Your task to perform on an android device: install app "AliExpress" Image 0: 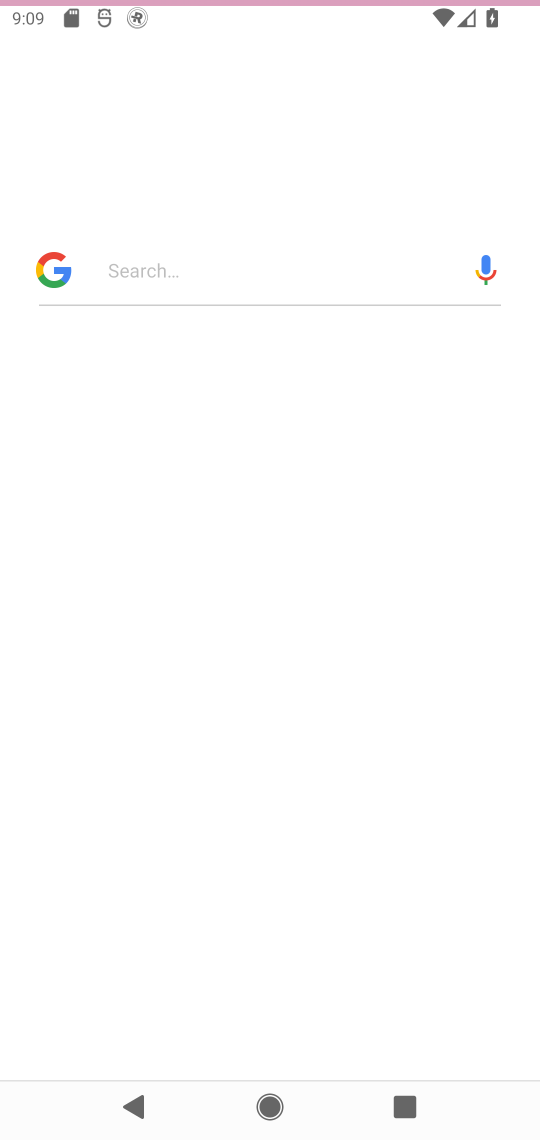
Step 0: press home button
Your task to perform on an android device: install app "AliExpress" Image 1: 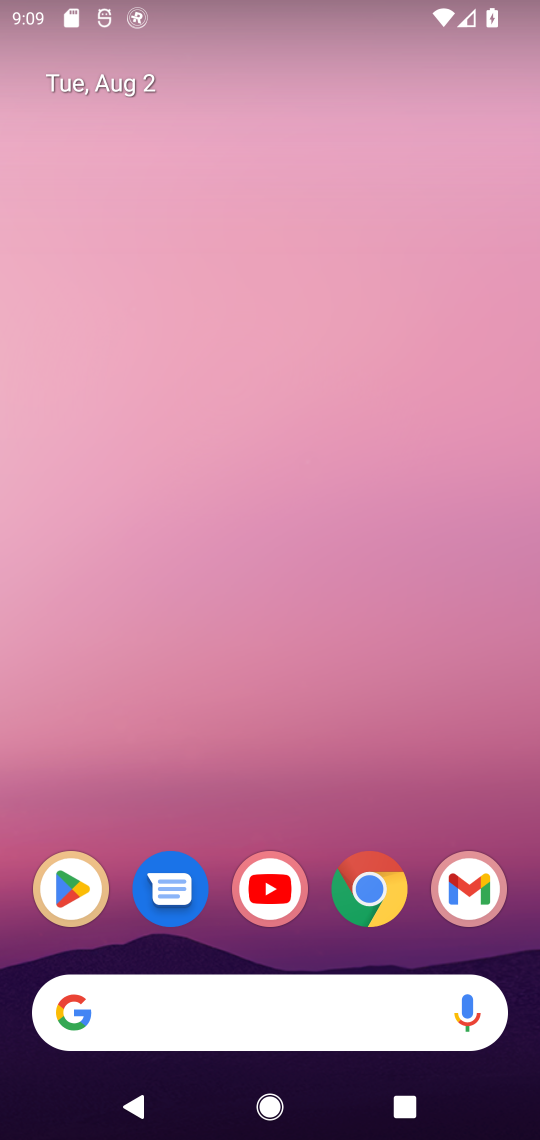
Step 1: click (84, 890)
Your task to perform on an android device: install app "AliExpress" Image 2: 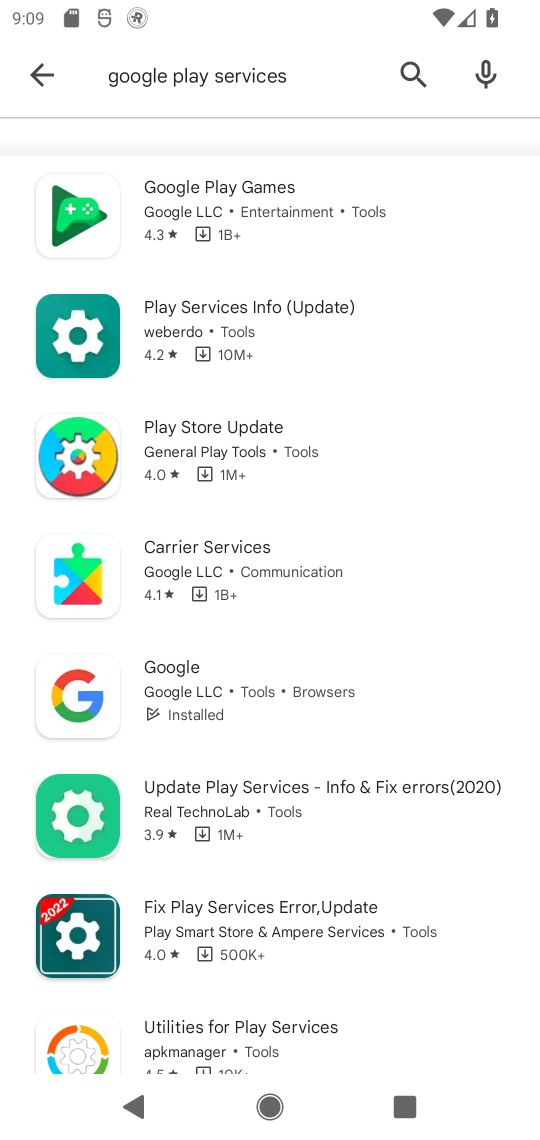
Step 2: click (420, 72)
Your task to perform on an android device: install app "AliExpress" Image 3: 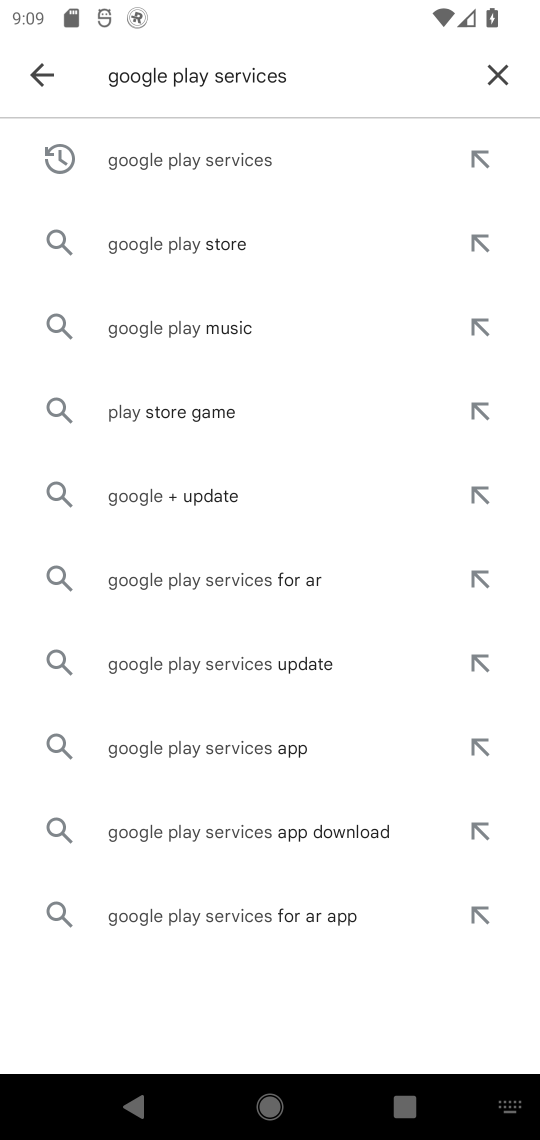
Step 3: click (490, 69)
Your task to perform on an android device: install app "AliExpress" Image 4: 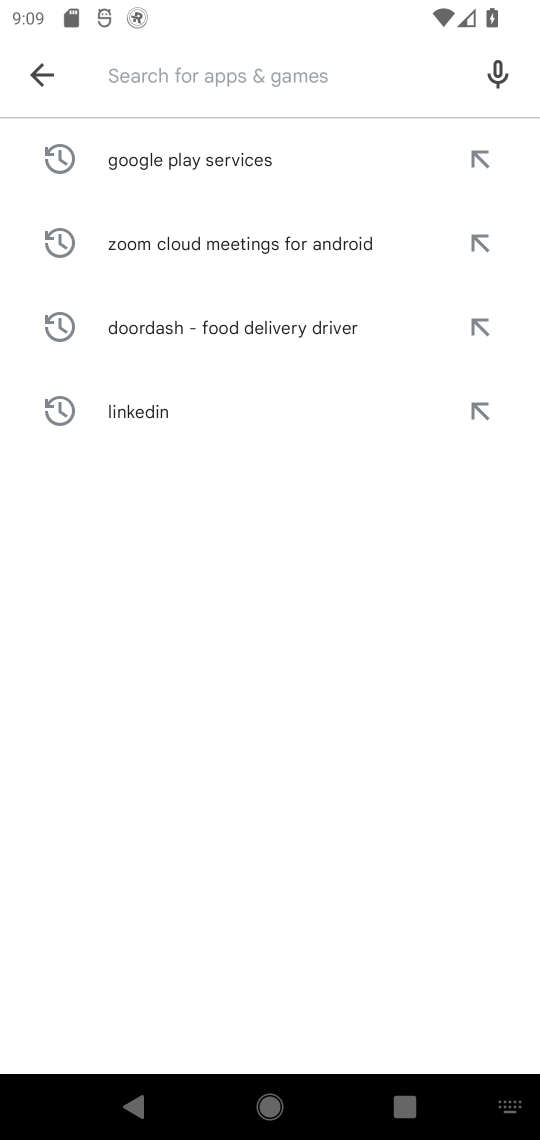
Step 4: type "AliExpress"
Your task to perform on an android device: install app "AliExpress" Image 5: 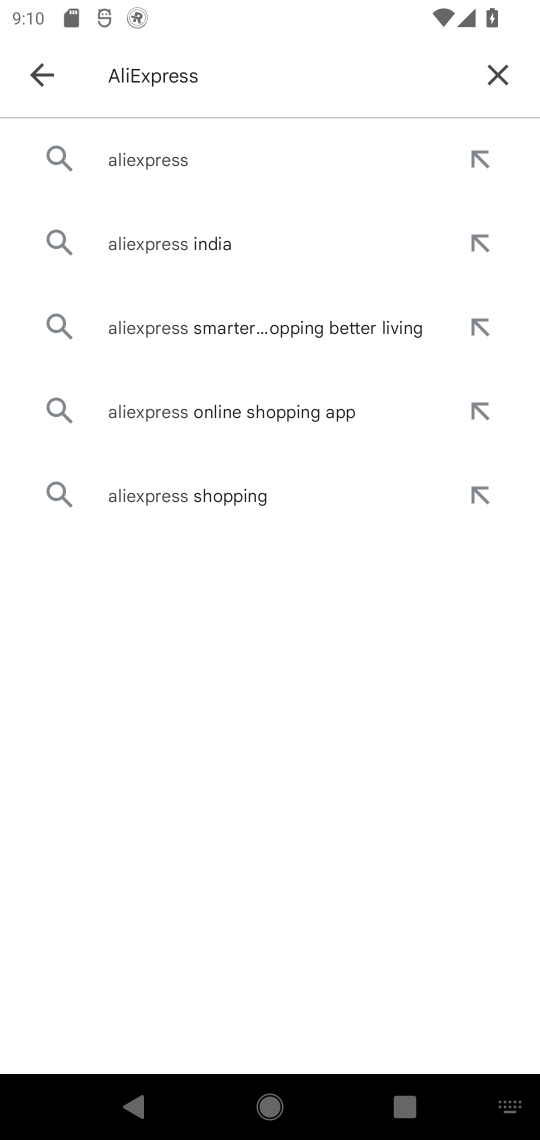
Step 5: click (224, 166)
Your task to perform on an android device: install app "AliExpress" Image 6: 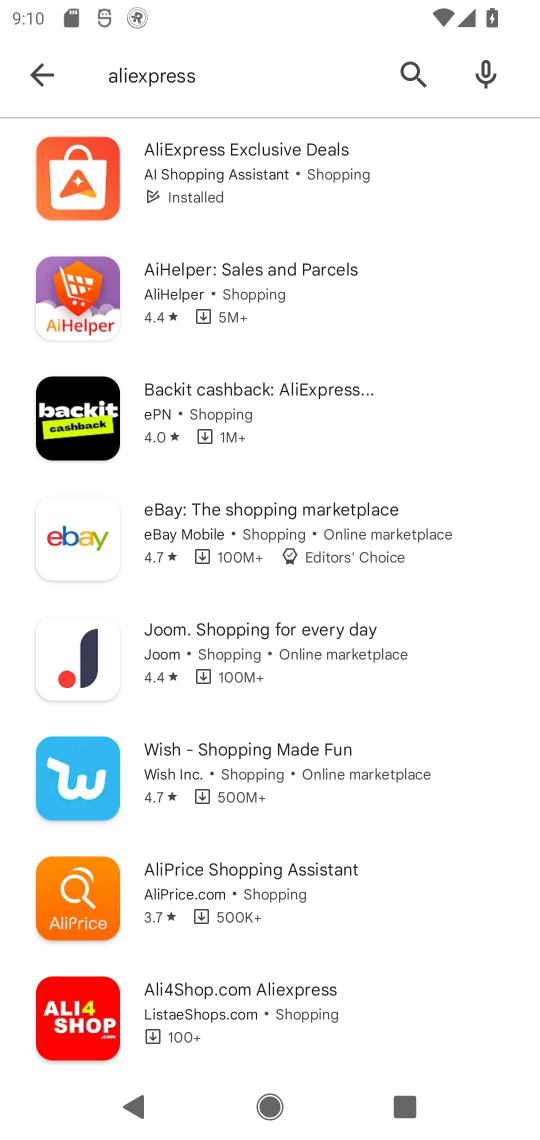
Step 6: click (255, 181)
Your task to perform on an android device: install app "AliExpress" Image 7: 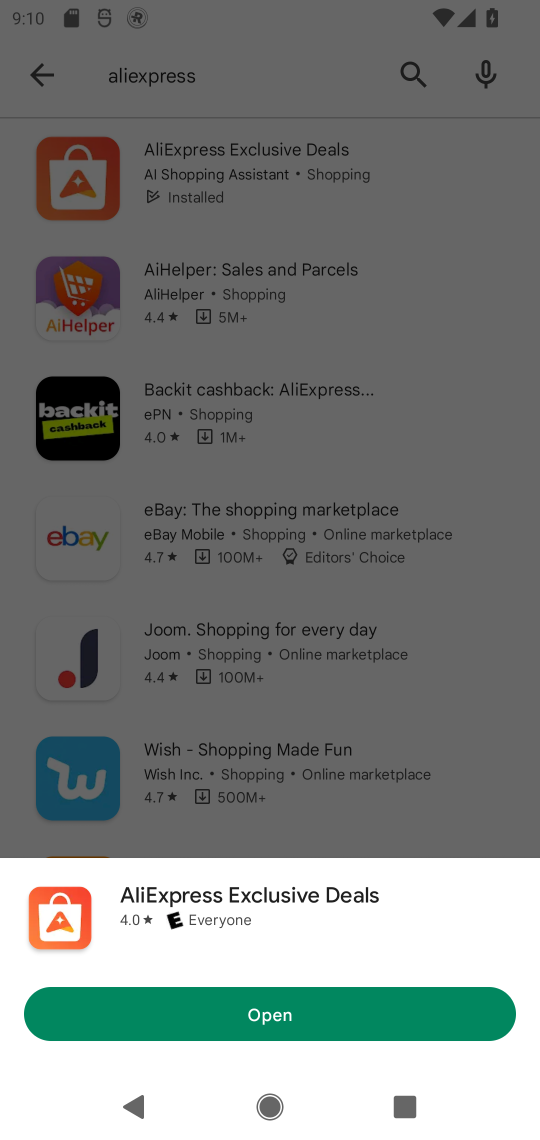
Step 7: task complete